Your task to perform on an android device: turn on javascript in the chrome app Image 0: 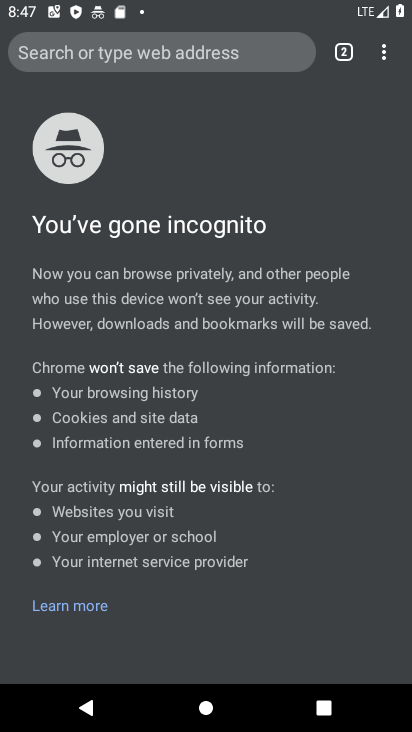
Step 0: drag from (381, 54) to (248, 429)
Your task to perform on an android device: turn on javascript in the chrome app Image 1: 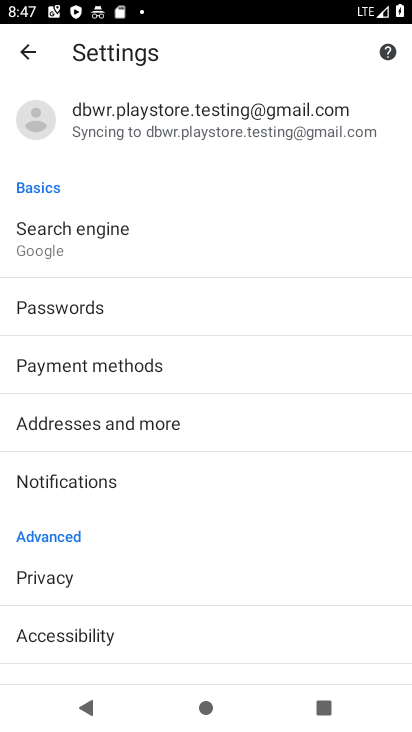
Step 1: click (142, 78)
Your task to perform on an android device: turn on javascript in the chrome app Image 2: 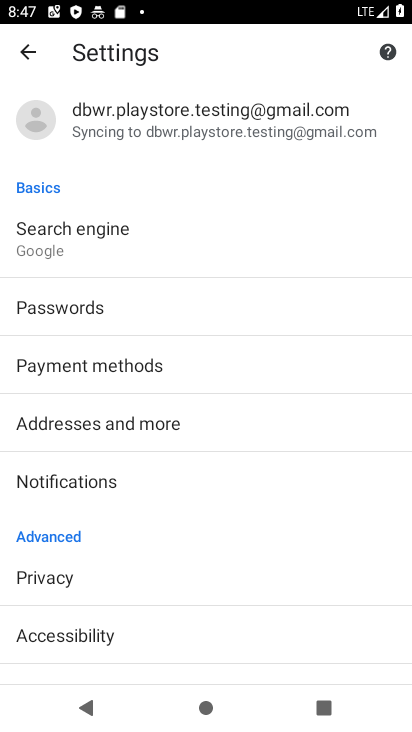
Step 2: drag from (236, 627) to (342, 2)
Your task to perform on an android device: turn on javascript in the chrome app Image 3: 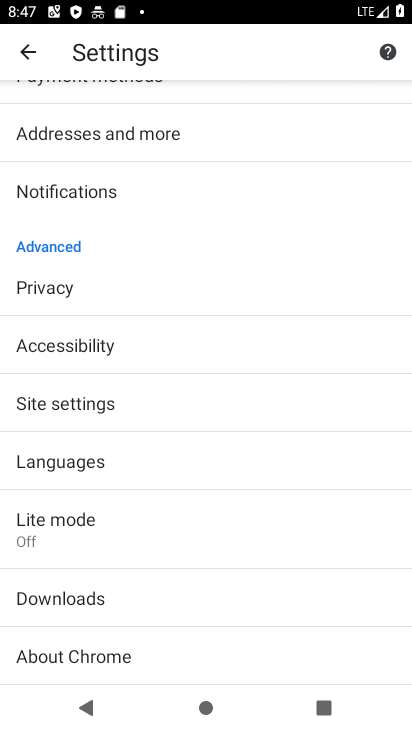
Step 3: click (161, 414)
Your task to perform on an android device: turn on javascript in the chrome app Image 4: 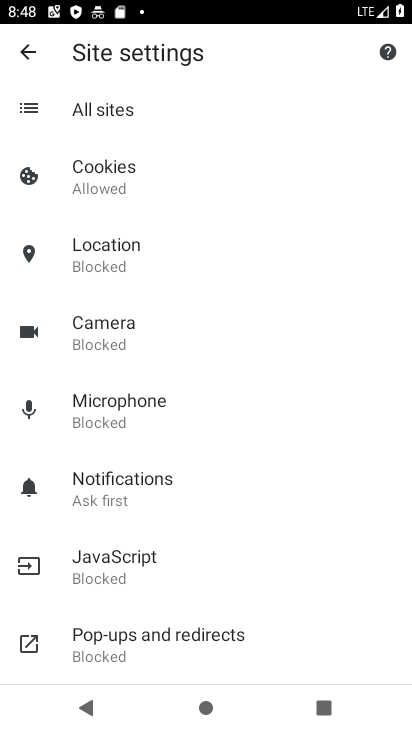
Step 4: click (171, 559)
Your task to perform on an android device: turn on javascript in the chrome app Image 5: 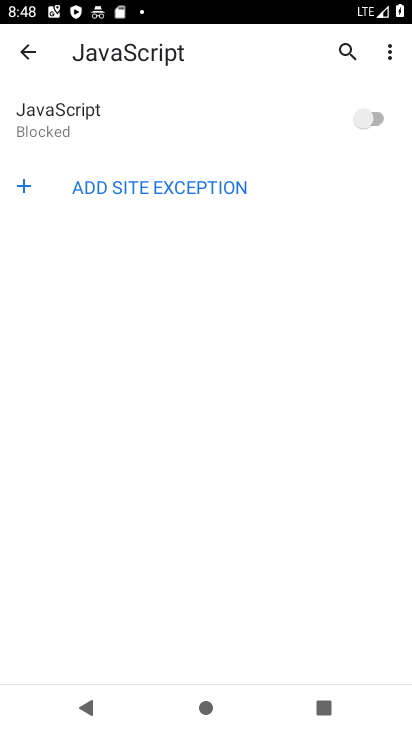
Step 5: click (369, 120)
Your task to perform on an android device: turn on javascript in the chrome app Image 6: 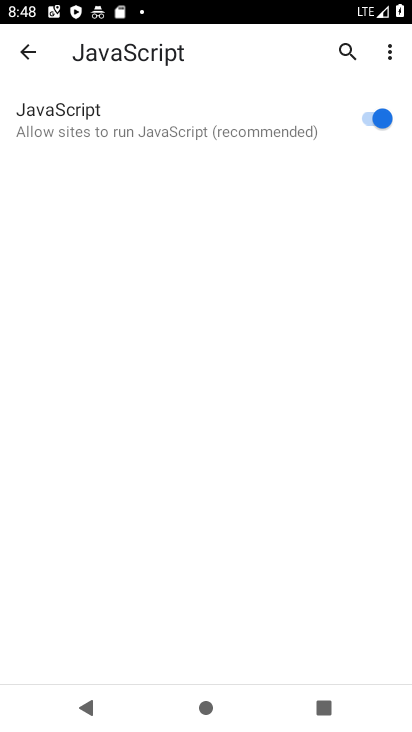
Step 6: task complete